Your task to perform on an android device: change the clock display to analog Image 0: 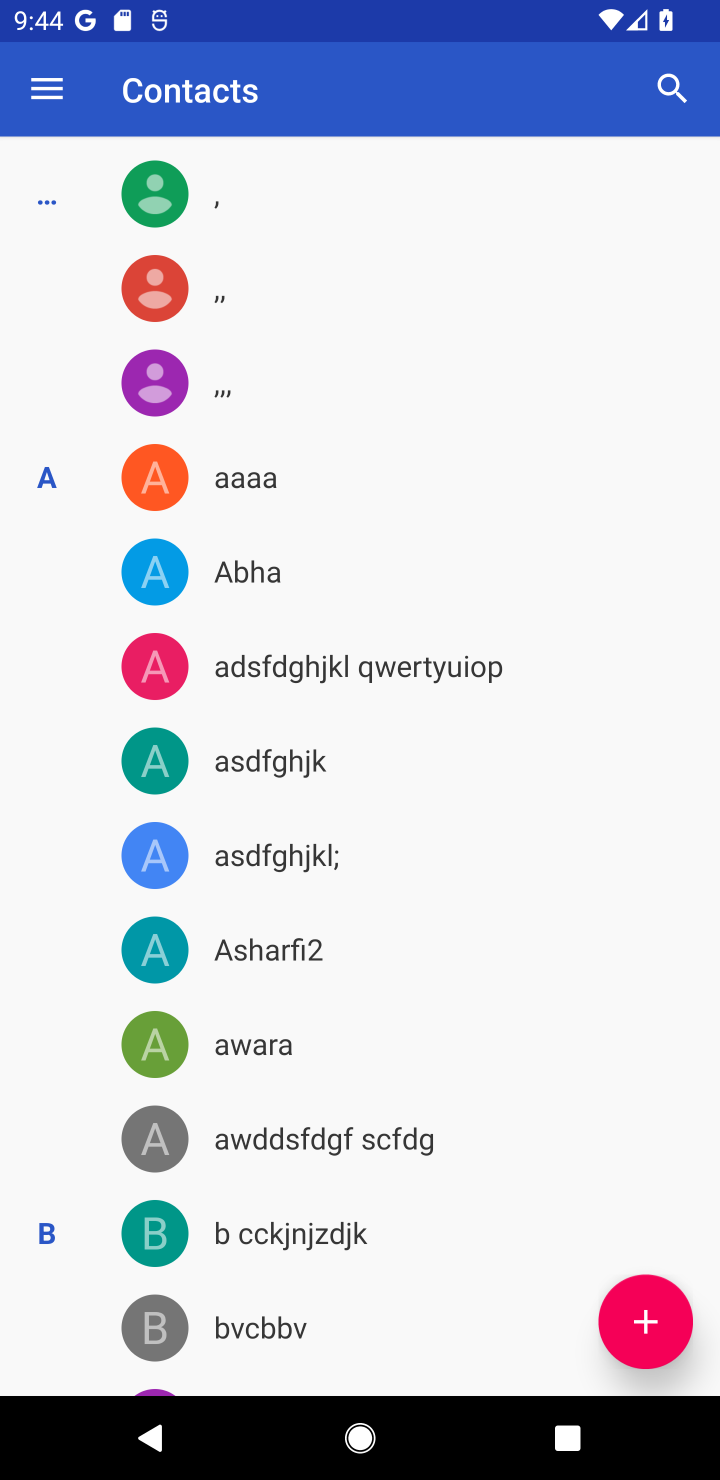
Step 0: press home button
Your task to perform on an android device: change the clock display to analog Image 1: 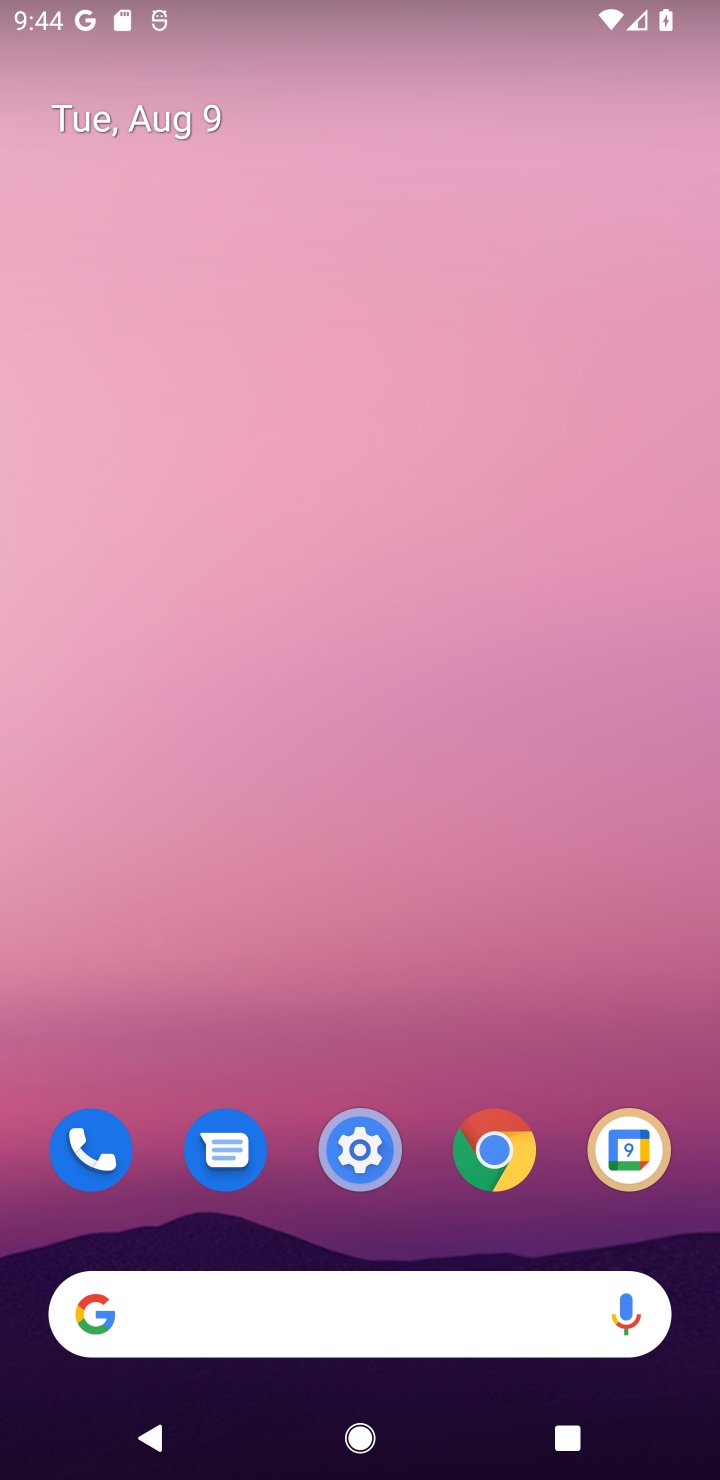
Step 1: drag from (339, 1309) to (408, 509)
Your task to perform on an android device: change the clock display to analog Image 2: 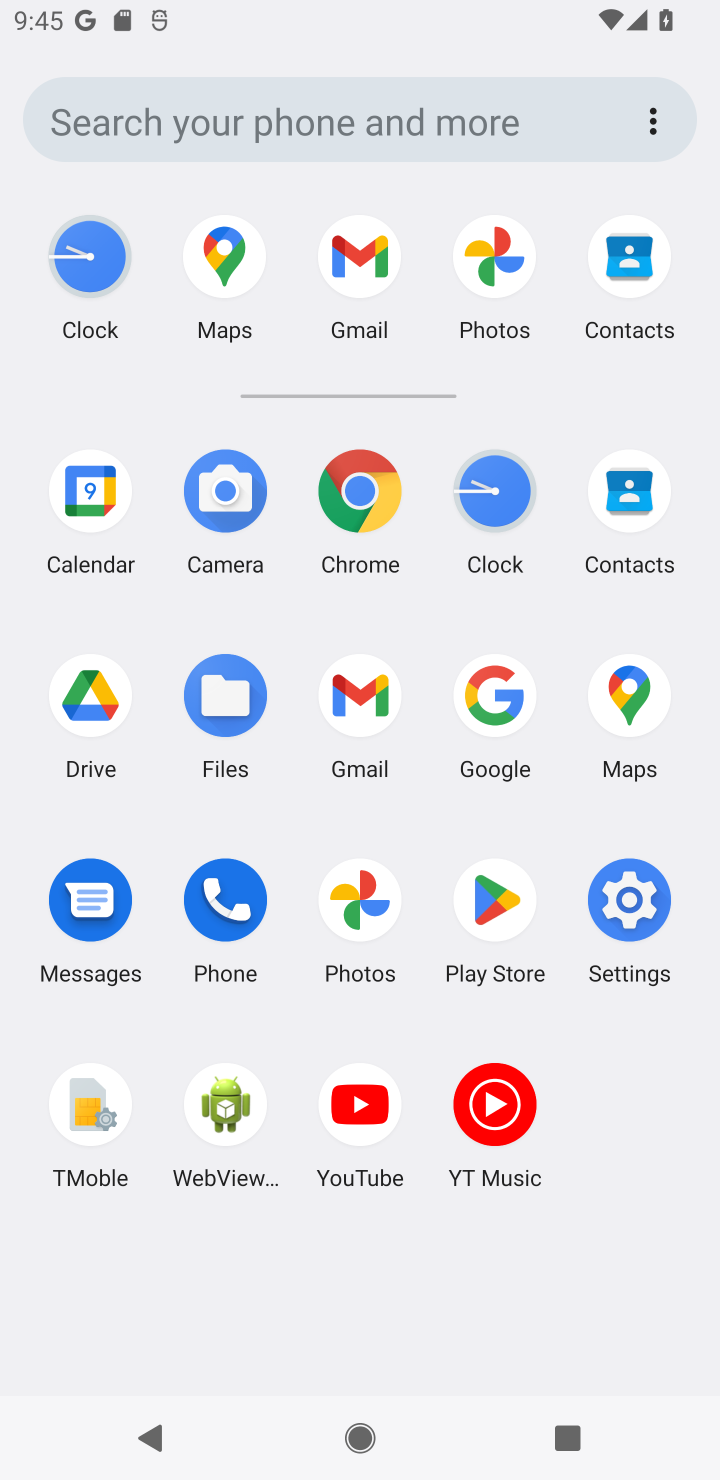
Step 2: click (512, 516)
Your task to perform on an android device: change the clock display to analog Image 3: 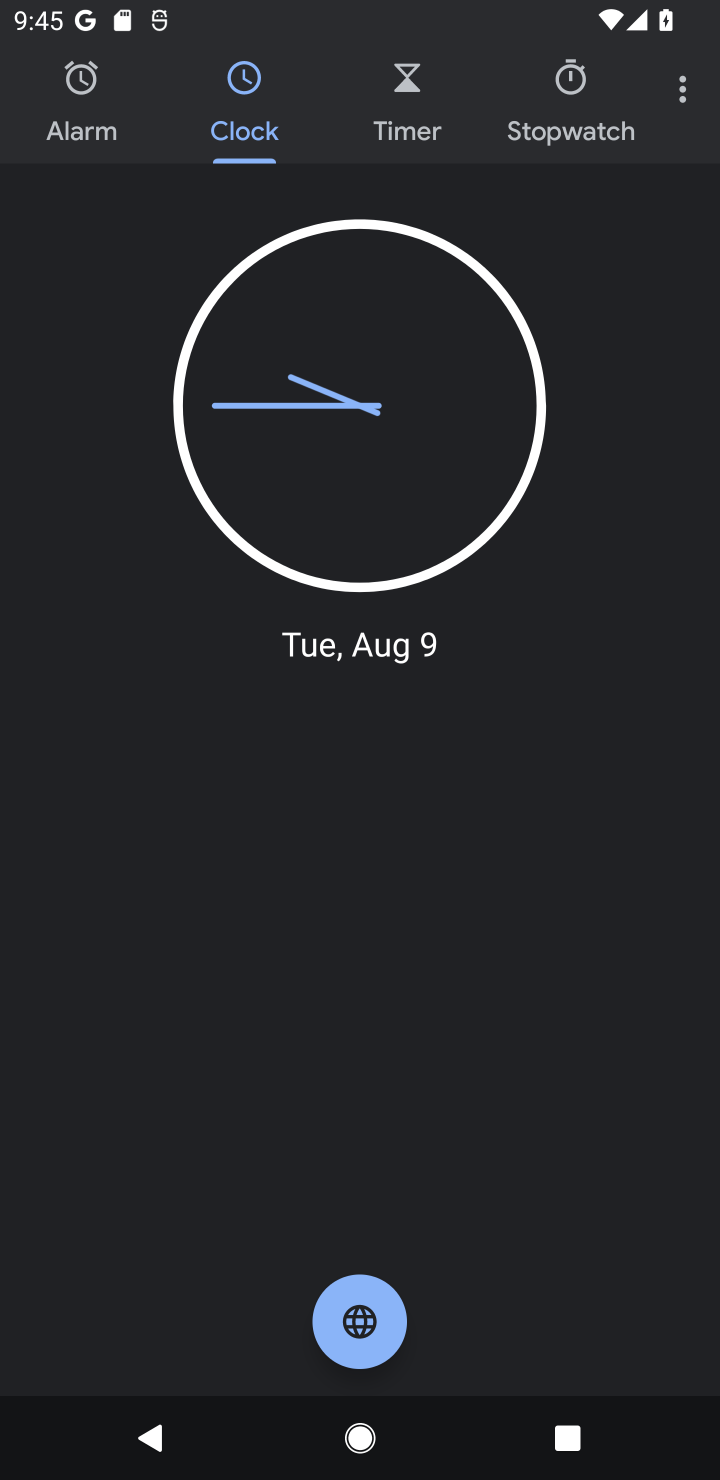
Step 3: click (662, 92)
Your task to perform on an android device: change the clock display to analog Image 4: 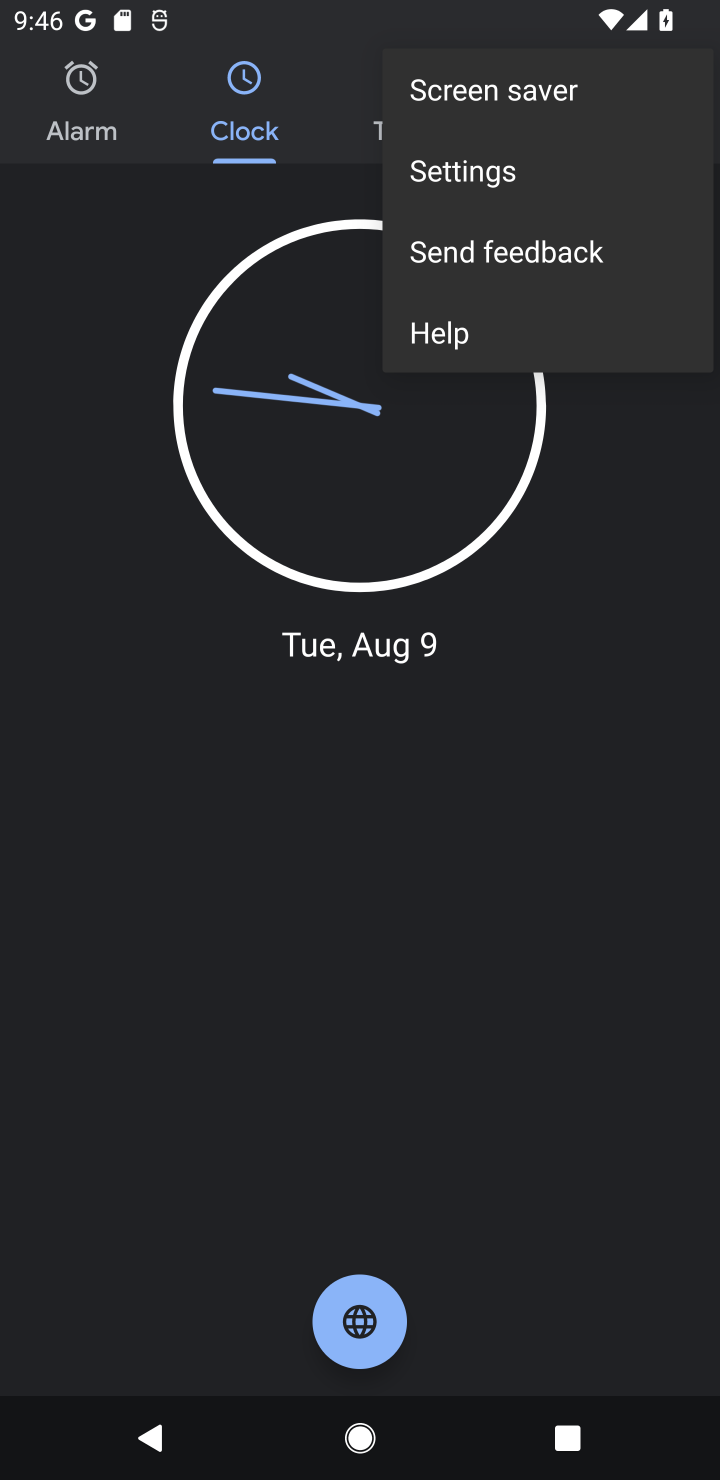
Step 4: click (497, 192)
Your task to perform on an android device: change the clock display to analog Image 5: 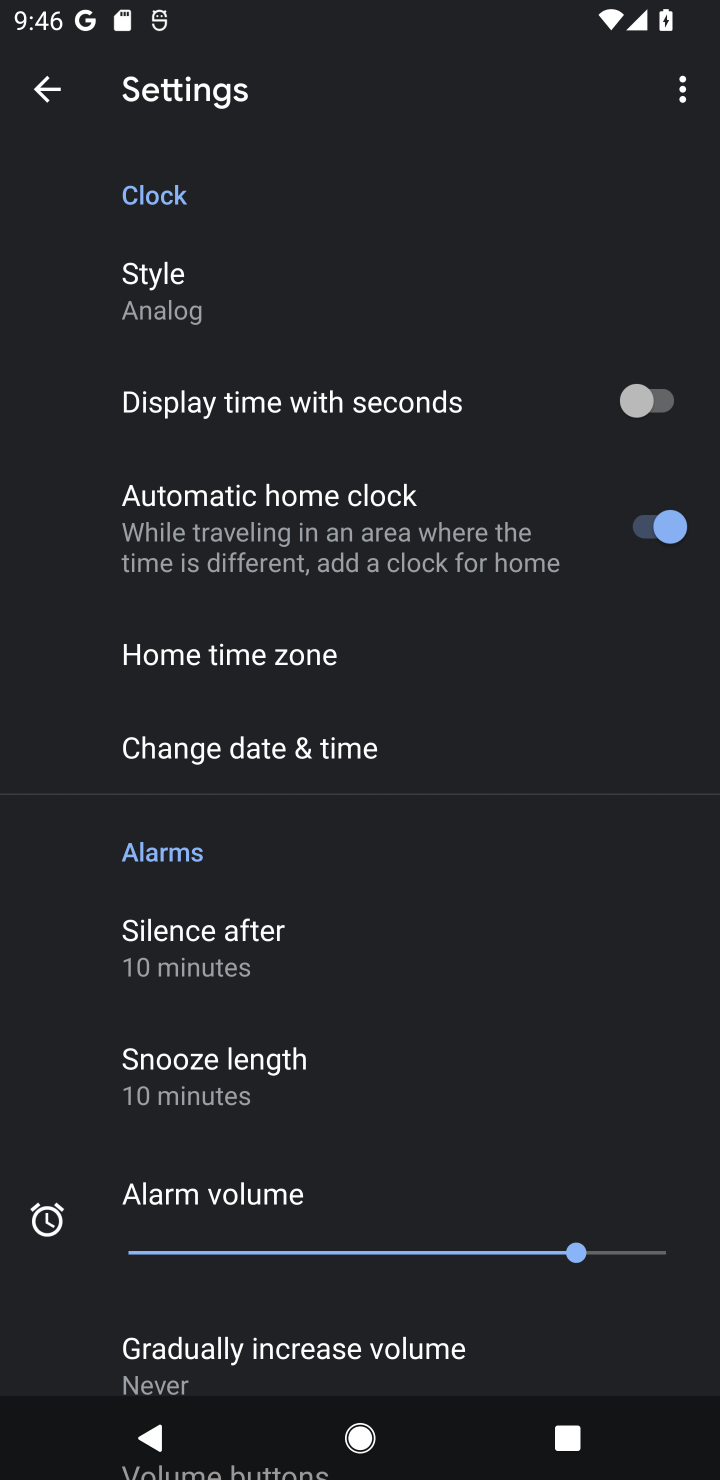
Step 5: task complete